Your task to perform on an android device: turn off location Image 0: 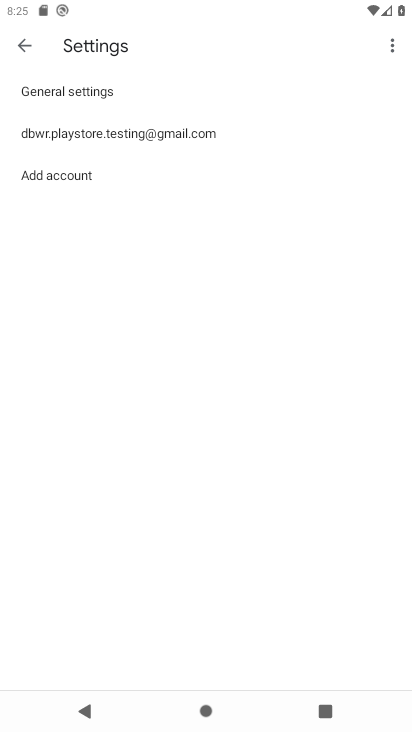
Step 0: press home button
Your task to perform on an android device: turn off location Image 1: 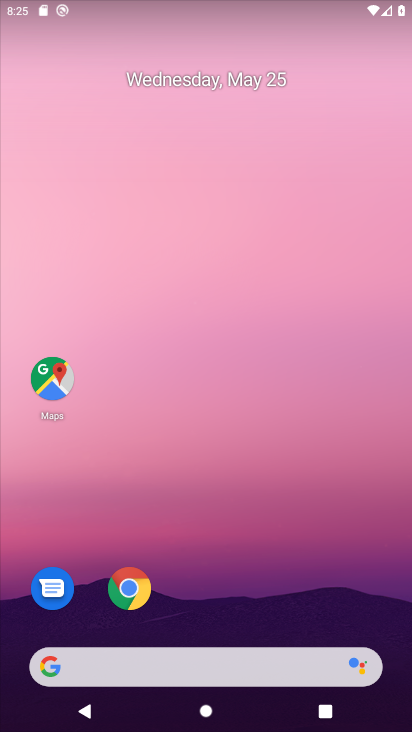
Step 1: drag from (384, 602) to (377, 261)
Your task to perform on an android device: turn off location Image 2: 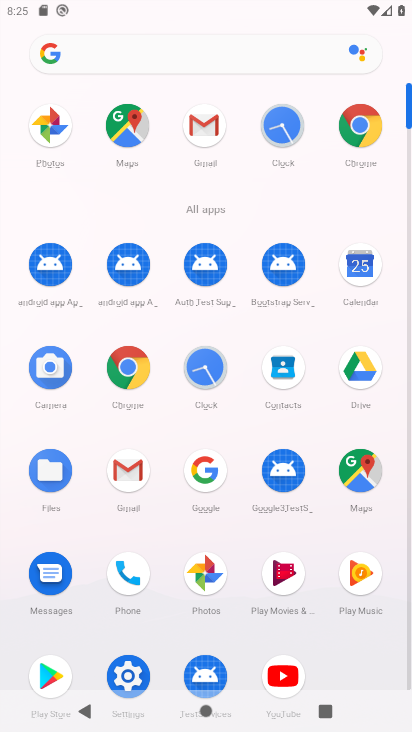
Step 2: drag from (368, 658) to (369, 446)
Your task to perform on an android device: turn off location Image 3: 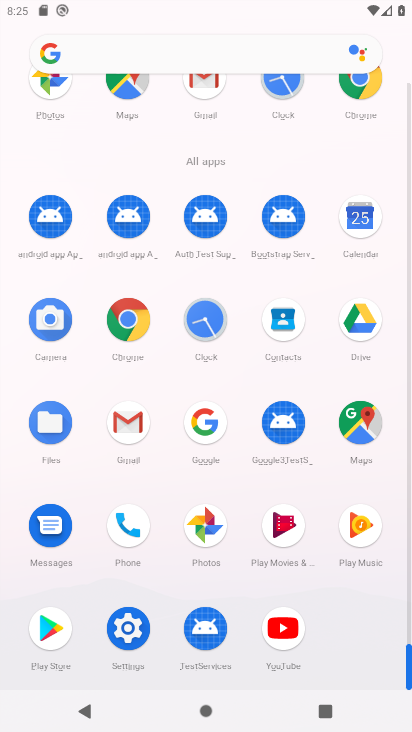
Step 3: click (130, 640)
Your task to perform on an android device: turn off location Image 4: 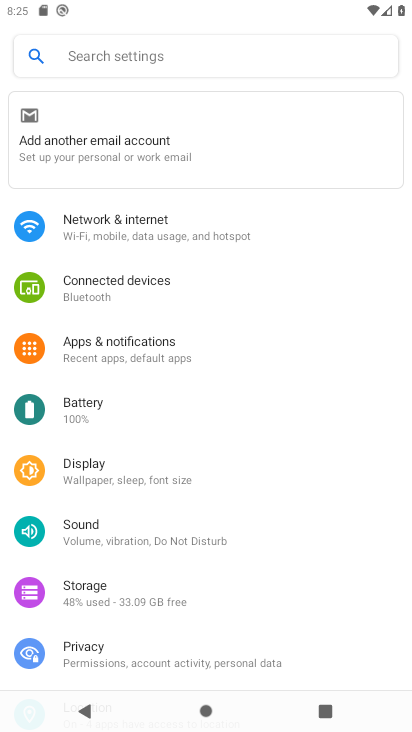
Step 4: drag from (373, 613) to (374, 485)
Your task to perform on an android device: turn off location Image 5: 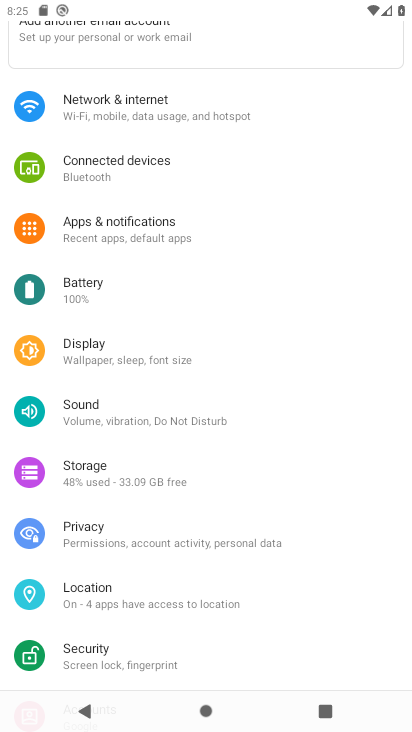
Step 5: drag from (361, 643) to (368, 494)
Your task to perform on an android device: turn off location Image 6: 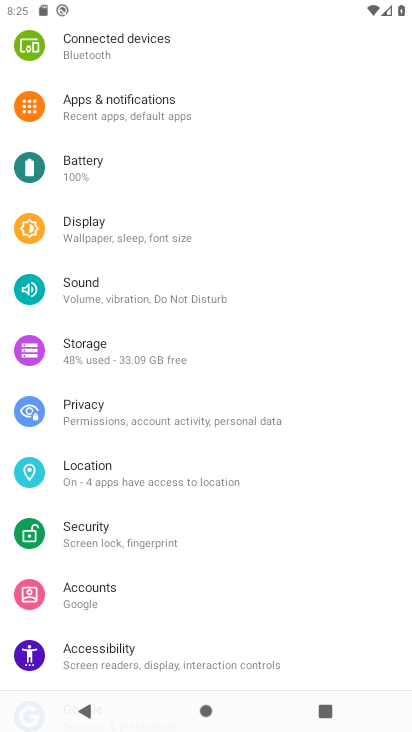
Step 6: drag from (372, 607) to (378, 520)
Your task to perform on an android device: turn off location Image 7: 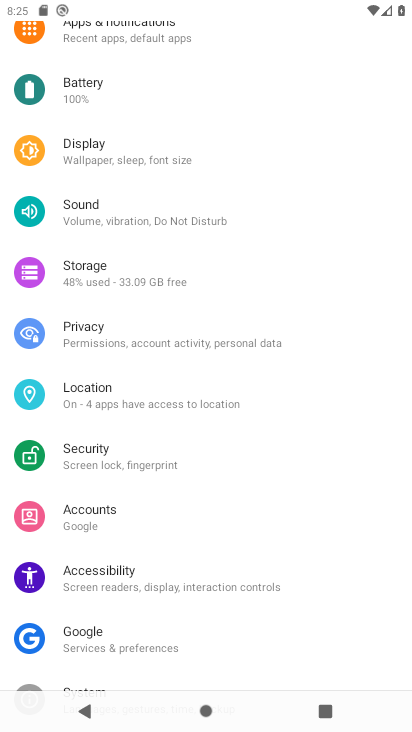
Step 7: drag from (377, 631) to (371, 505)
Your task to perform on an android device: turn off location Image 8: 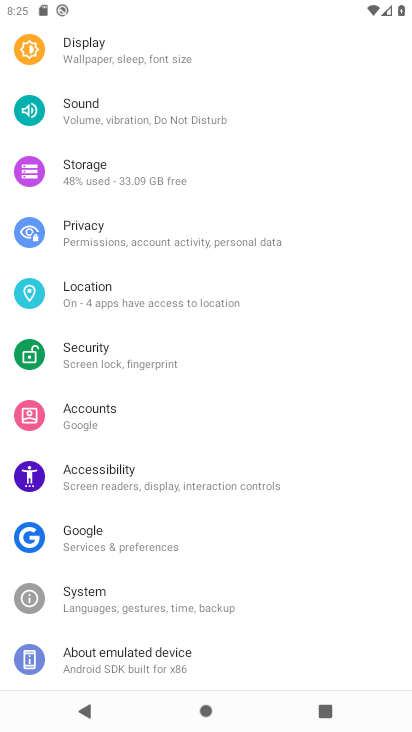
Step 8: drag from (354, 614) to (348, 516)
Your task to perform on an android device: turn off location Image 9: 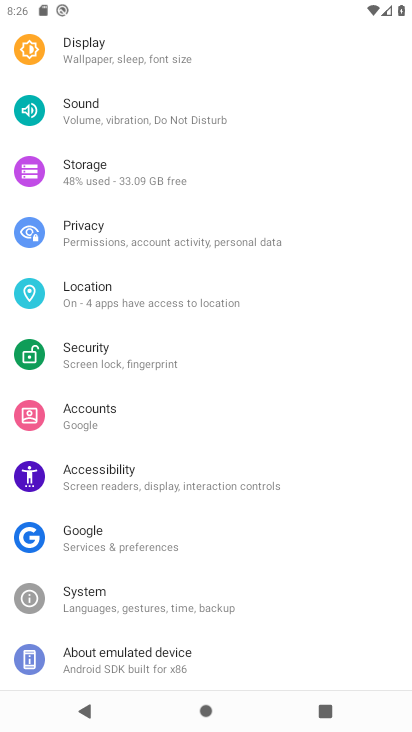
Step 9: click (226, 308)
Your task to perform on an android device: turn off location Image 10: 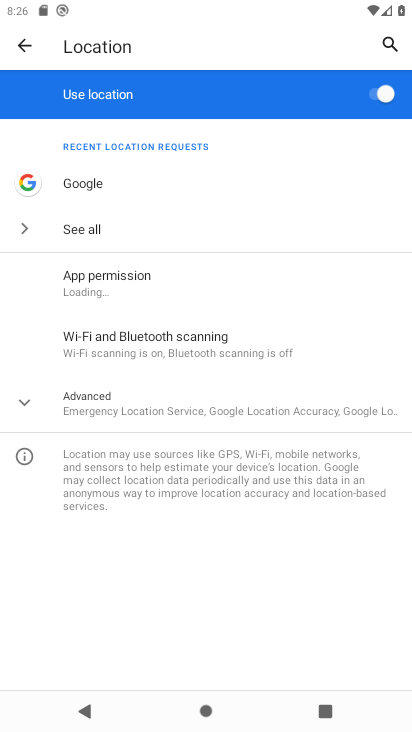
Step 10: click (381, 90)
Your task to perform on an android device: turn off location Image 11: 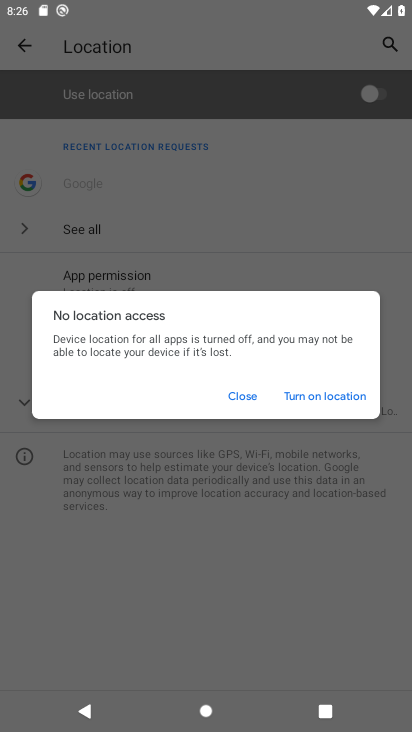
Step 11: task complete